Your task to perform on an android device: Go to sound settings Image 0: 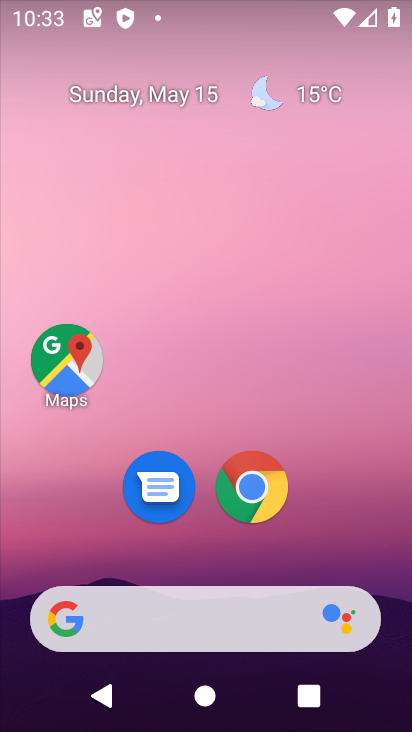
Step 0: drag from (395, 623) to (328, 161)
Your task to perform on an android device: Go to sound settings Image 1: 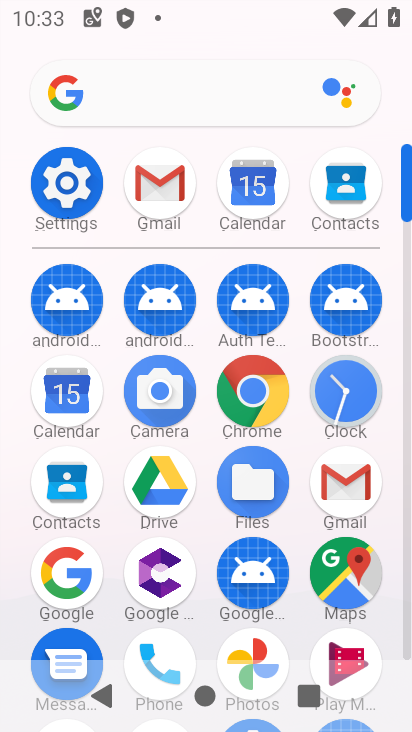
Step 1: click (408, 644)
Your task to perform on an android device: Go to sound settings Image 2: 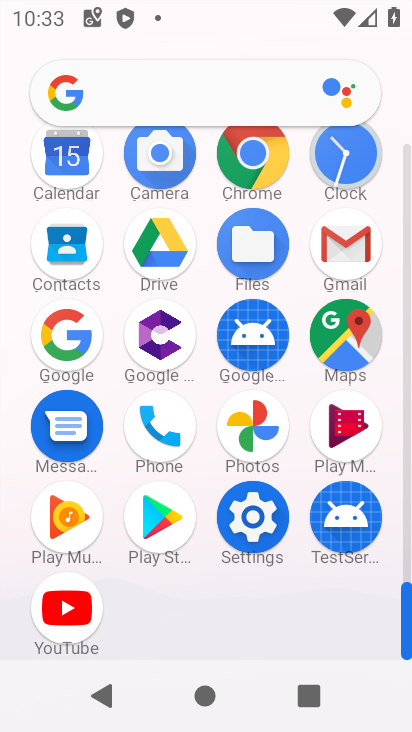
Step 2: click (253, 516)
Your task to perform on an android device: Go to sound settings Image 3: 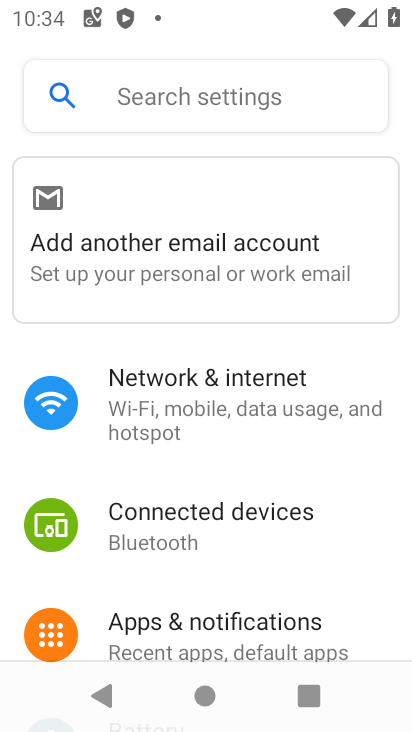
Step 3: drag from (347, 620) to (319, 242)
Your task to perform on an android device: Go to sound settings Image 4: 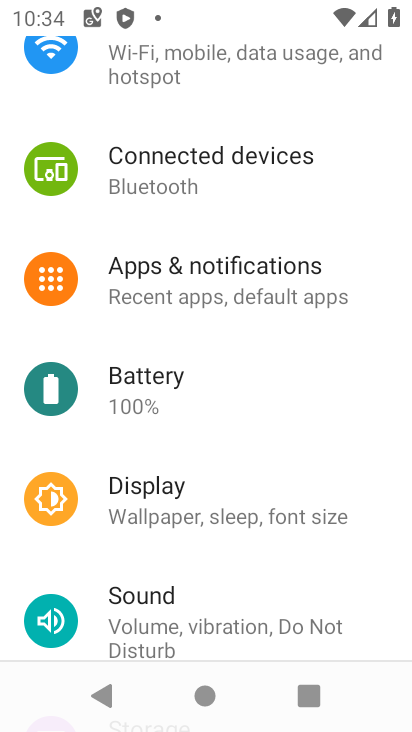
Step 4: click (117, 601)
Your task to perform on an android device: Go to sound settings Image 5: 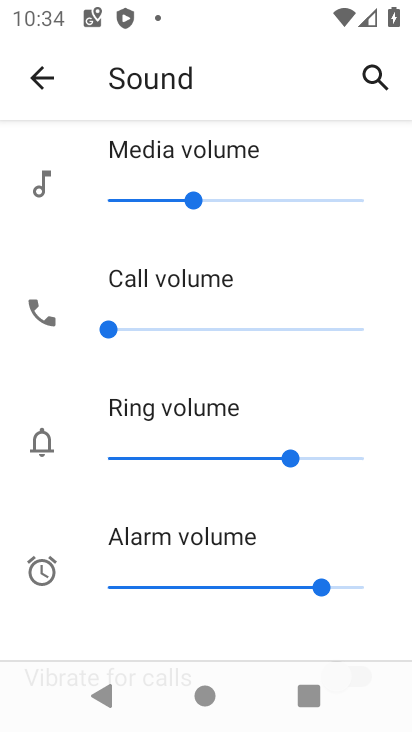
Step 5: drag from (316, 628) to (314, 111)
Your task to perform on an android device: Go to sound settings Image 6: 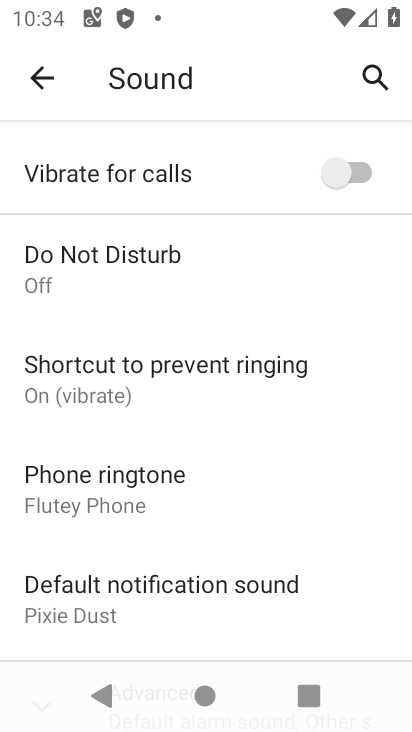
Step 6: drag from (331, 574) to (307, 82)
Your task to perform on an android device: Go to sound settings Image 7: 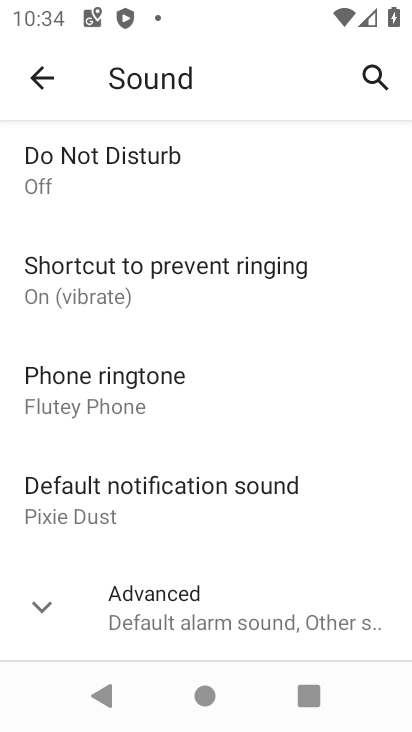
Step 7: click (34, 610)
Your task to perform on an android device: Go to sound settings Image 8: 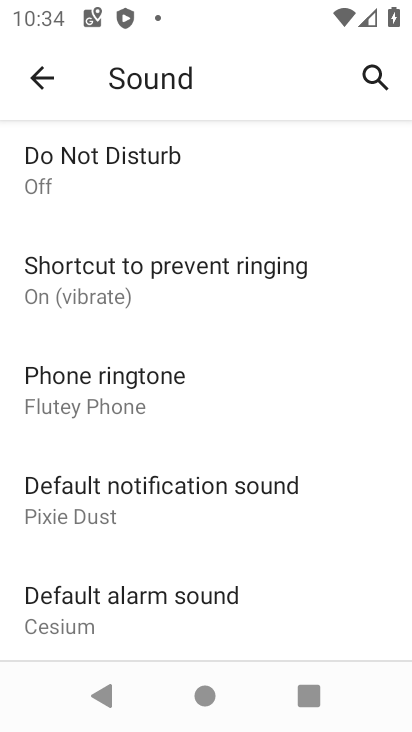
Step 8: task complete